Your task to perform on an android device: install app "Google Docs" Image 0: 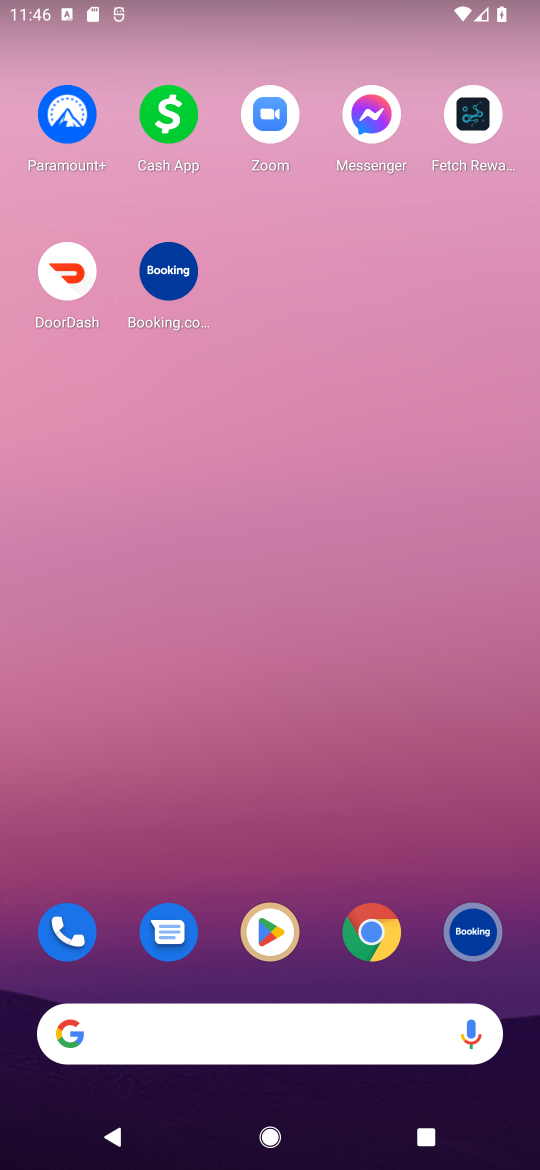
Step 0: click (294, 922)
Your task to perform on an android device: install app "Google Docs" Image 1: 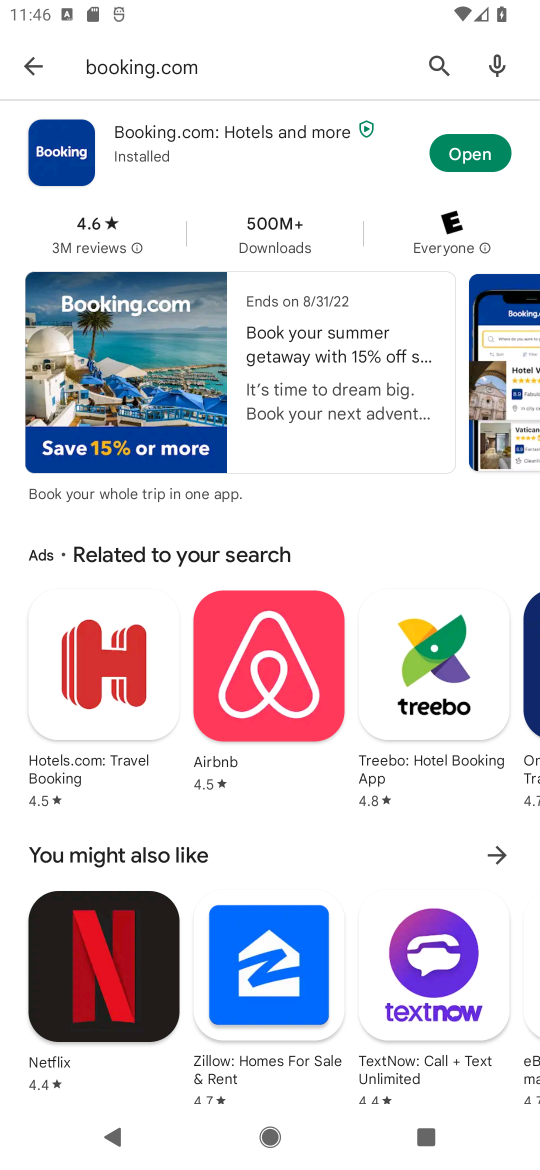
Step 1: click (422, 65)
Your task to perform on an android device: install app "Google Docs" Image 2: 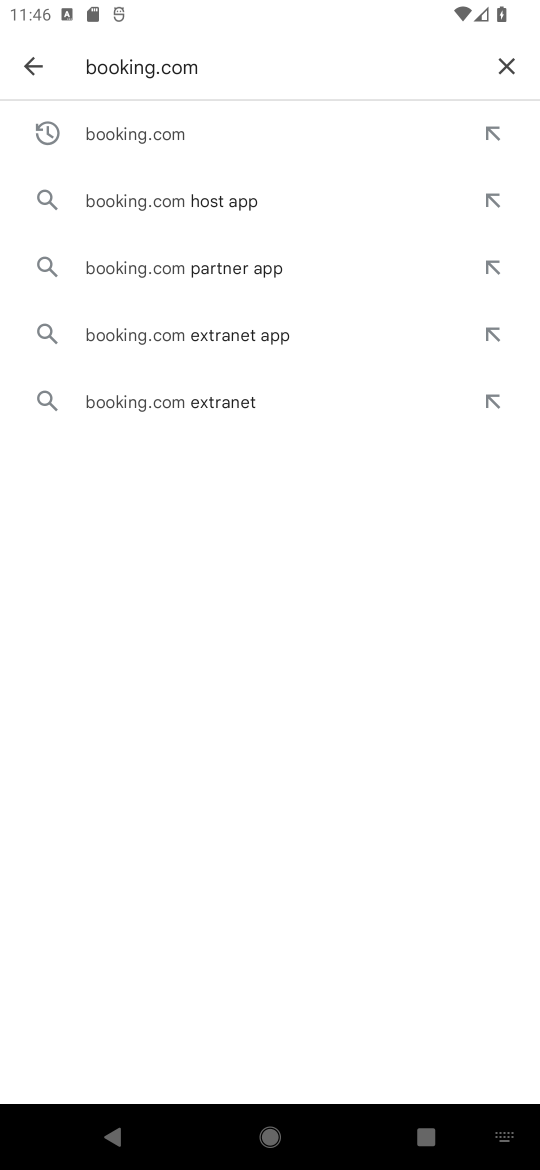
Step 2: click (504, 59)
Your task to perform on an android device: install app "Google Docs" Image 3: 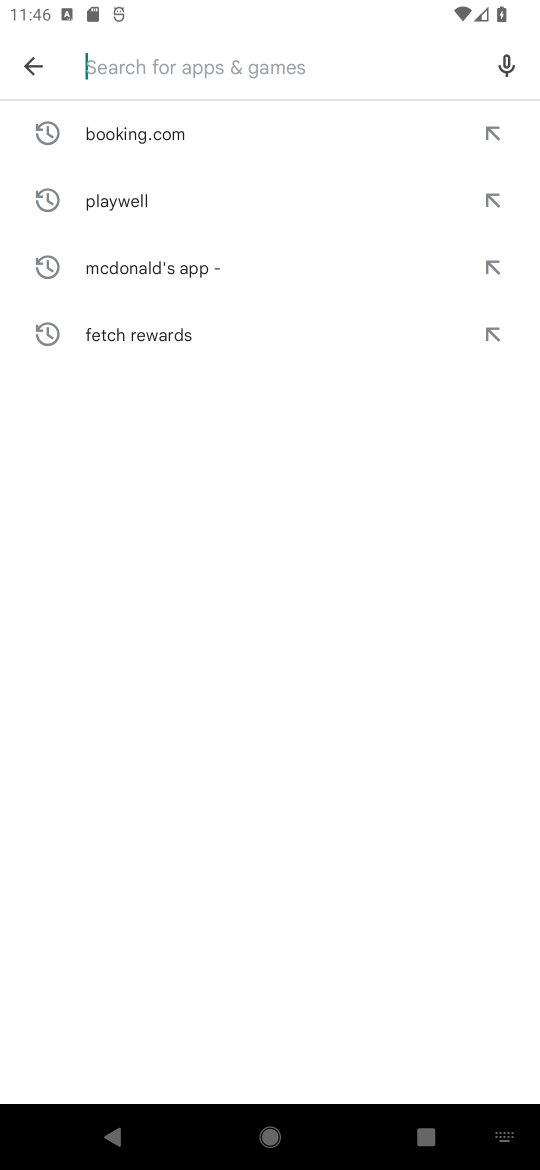
Step 3: click (176, 63)
Your task to perform on an android device: install app "Google Docs" Image 4: 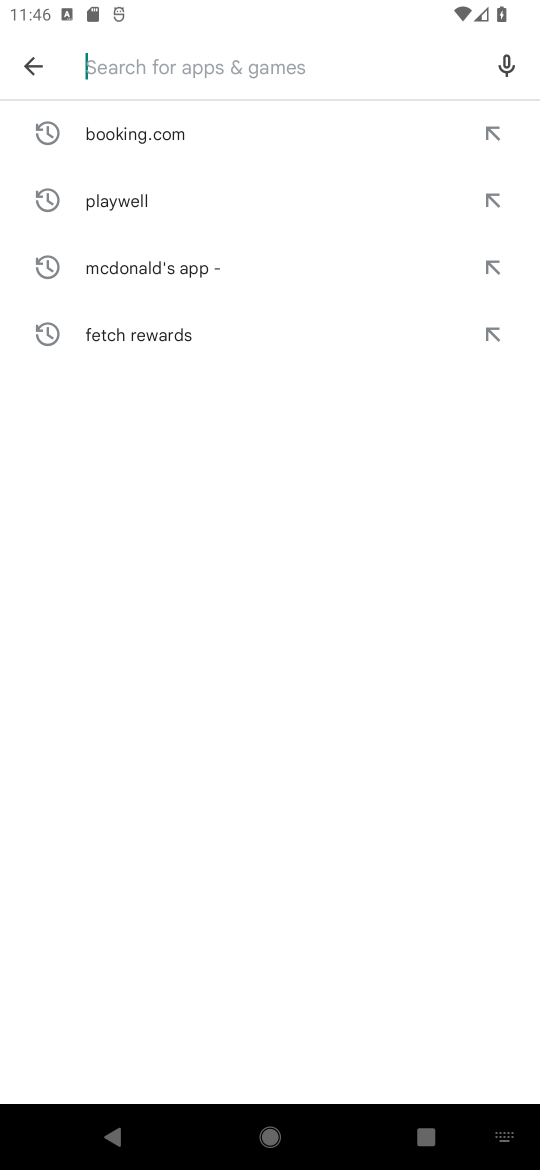
Step 4: type "Google Docs"
Your task to perform on an android device: install app "Google Docs" Image 5: 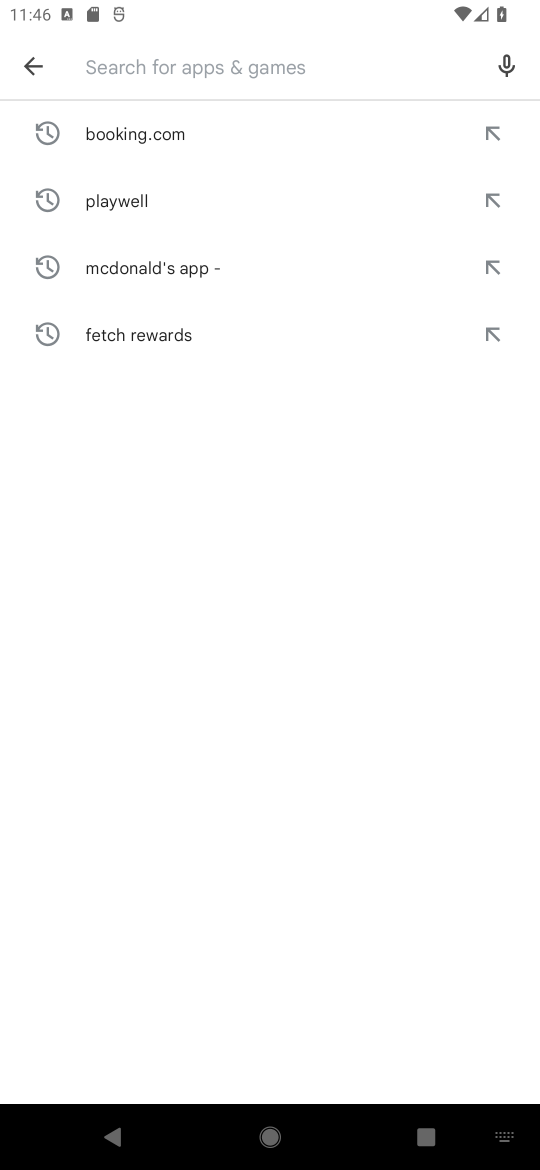
Step 5: click (170, 680)
Your task to perform on an android device: install app "Google Docs" Image 6: 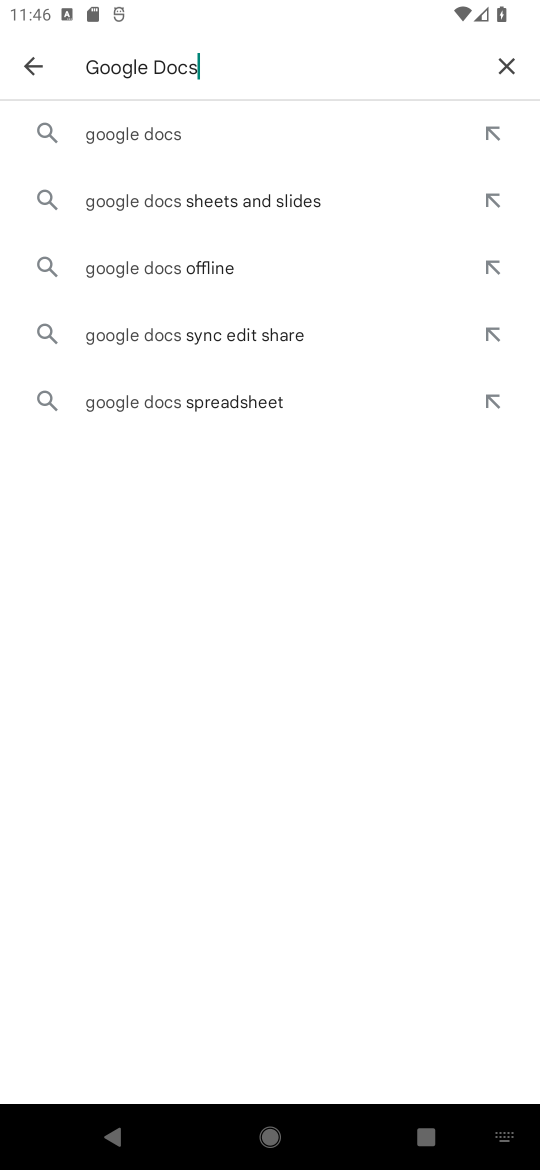
Step 6: click (222, 129)
Your task to perform on an android device: install app "Google Docs" Image 7: 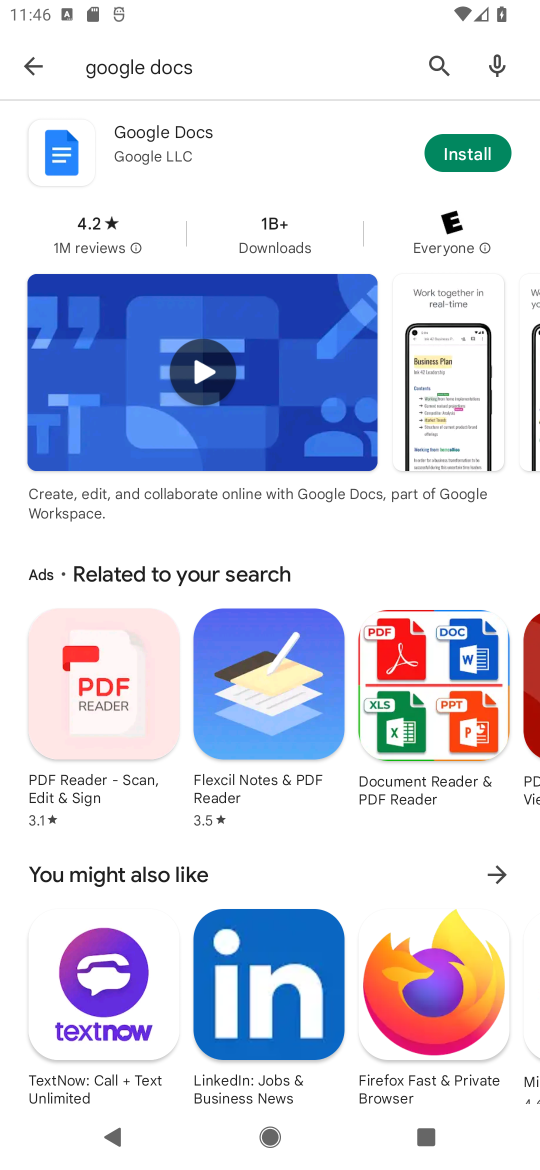
Step 7: click (439, 149)
Your task to perform on an android device: install app "Google Docs" Image 8: 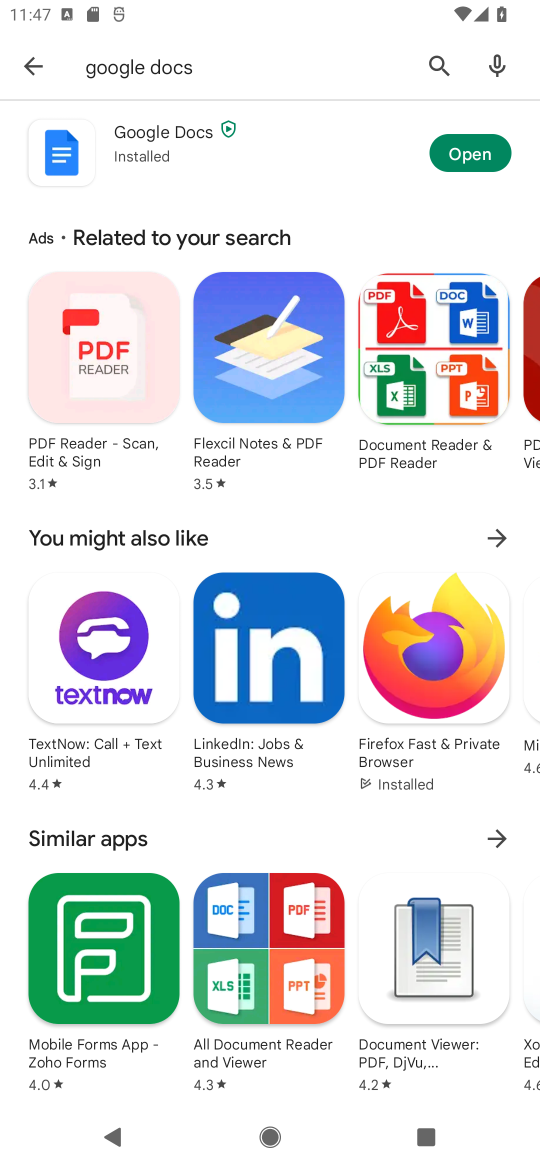
Step 8: click (152, 143)
Your task to perform on an android device: install app "Google Docs" Image 9: 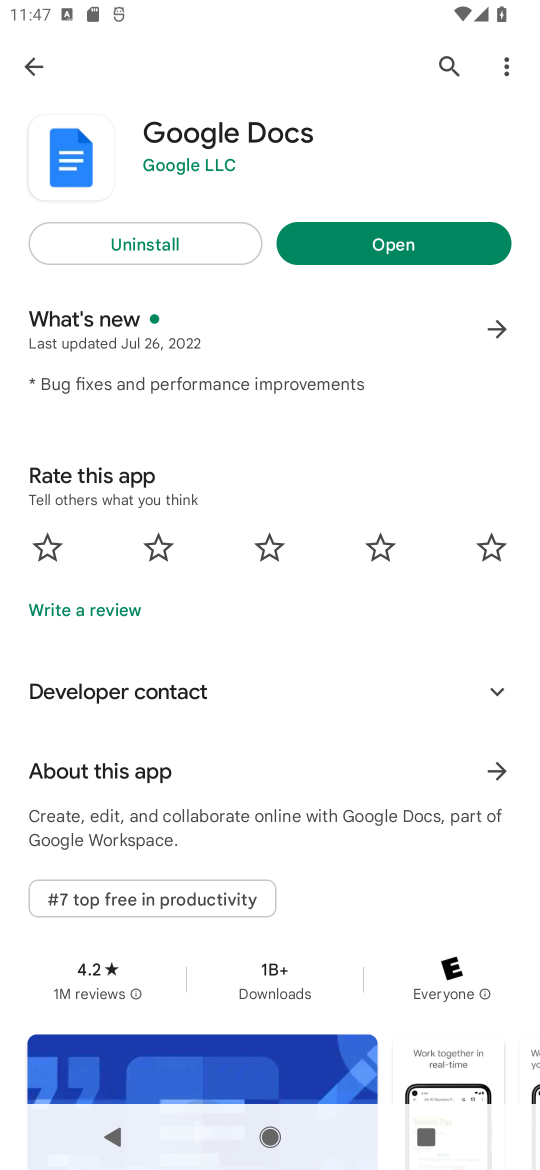
Step 9: task complete